Your task to perform on an android device: turn on data saver in the chrome app Image 0: 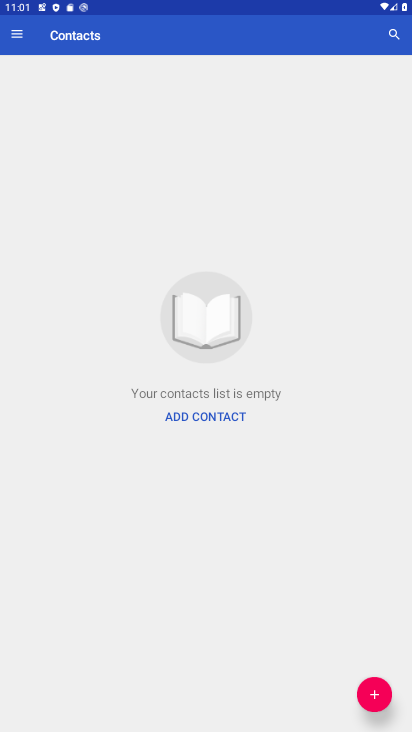
Step 0: press back button
Your task to perform on an android device: turn on data saver in the chrome app Image 1: 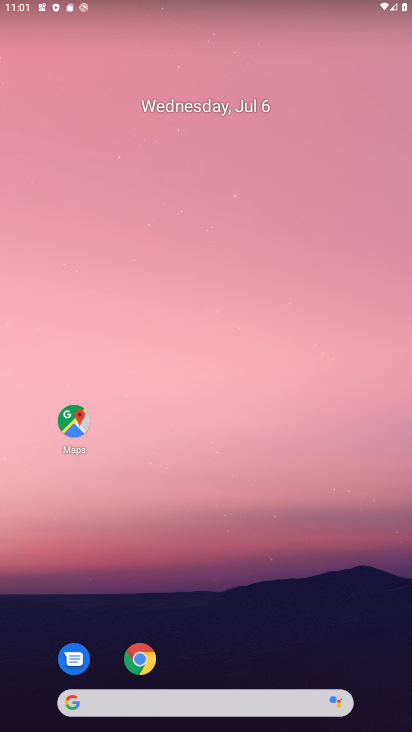
Step 1: click (131, 677)
Your task to perform on an android device: turn on data saver in the chrome app Image 2: 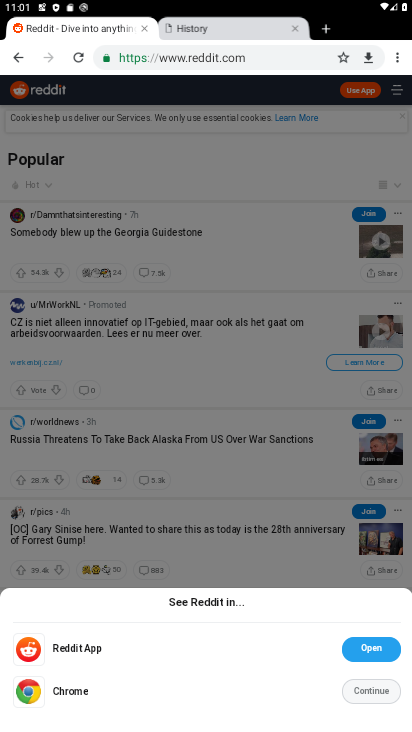
Step 2: click (394, 53)
Your task to perform on an android device: turn on data saver in the chrome app Image 3: 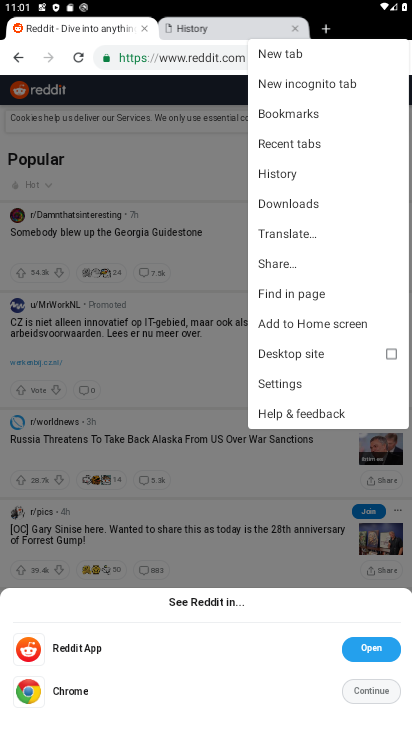
Step 3: click (269, 382)
Your task to perform on an android device: turn on data saver in the chrome app Image 4: 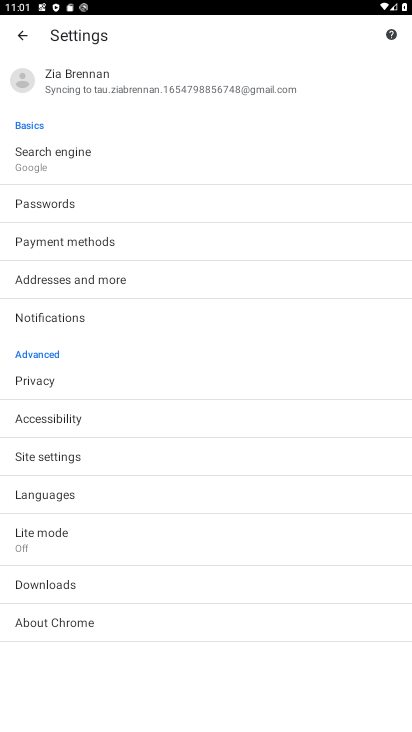
Step 4: click (53, 543)
Your task to perform on an android device: turn on data saver in the chrome app Image 5: 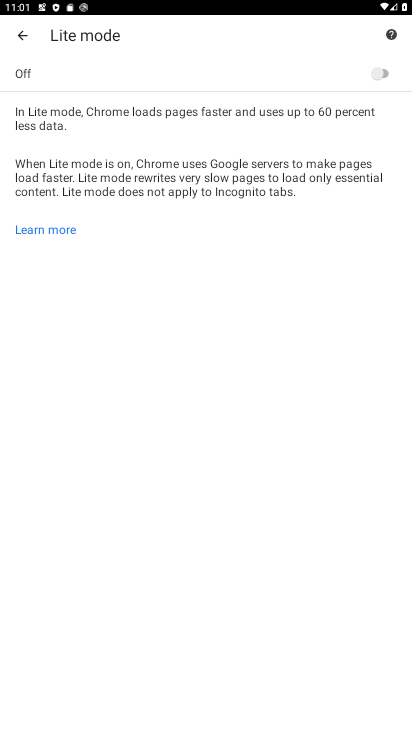
Step 5: click (376, 73)
Your task to perform on an android device: turn on data saver in the chrome app Image 6: 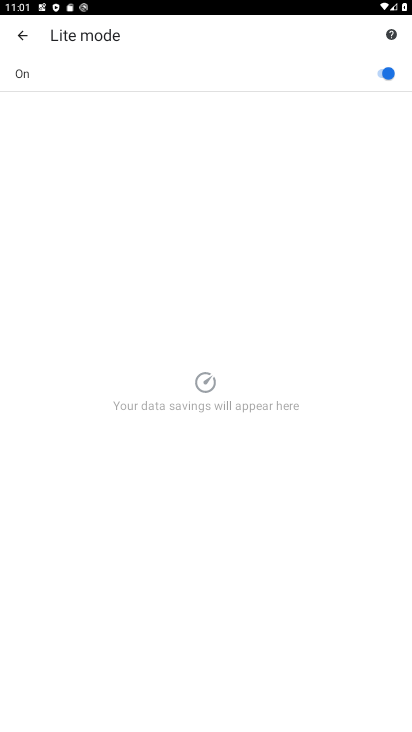
Step 6: task complete